Your task to perform on an android device: Go to network settings Image 0: 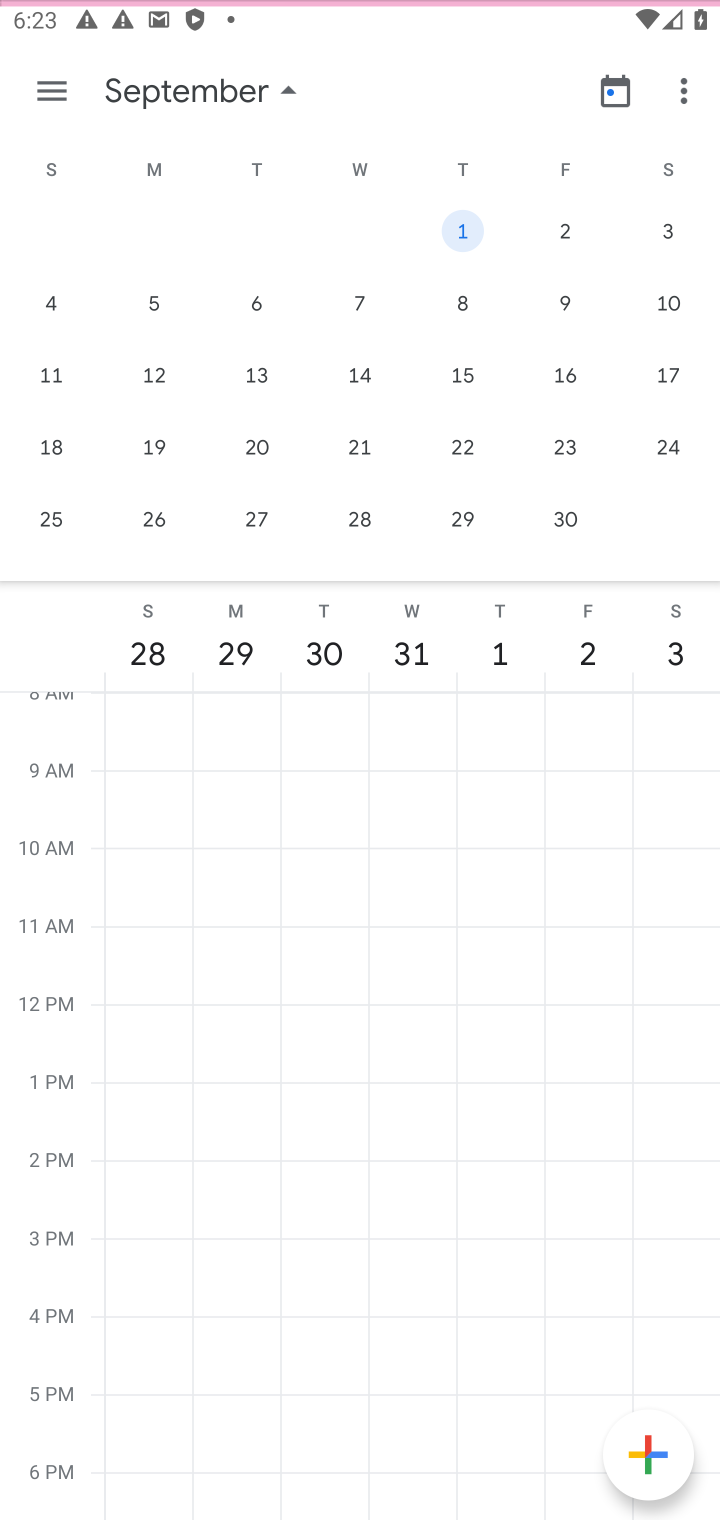
Step 0: press back button
Your task to perform on an android device: Go to network settings Image 1: 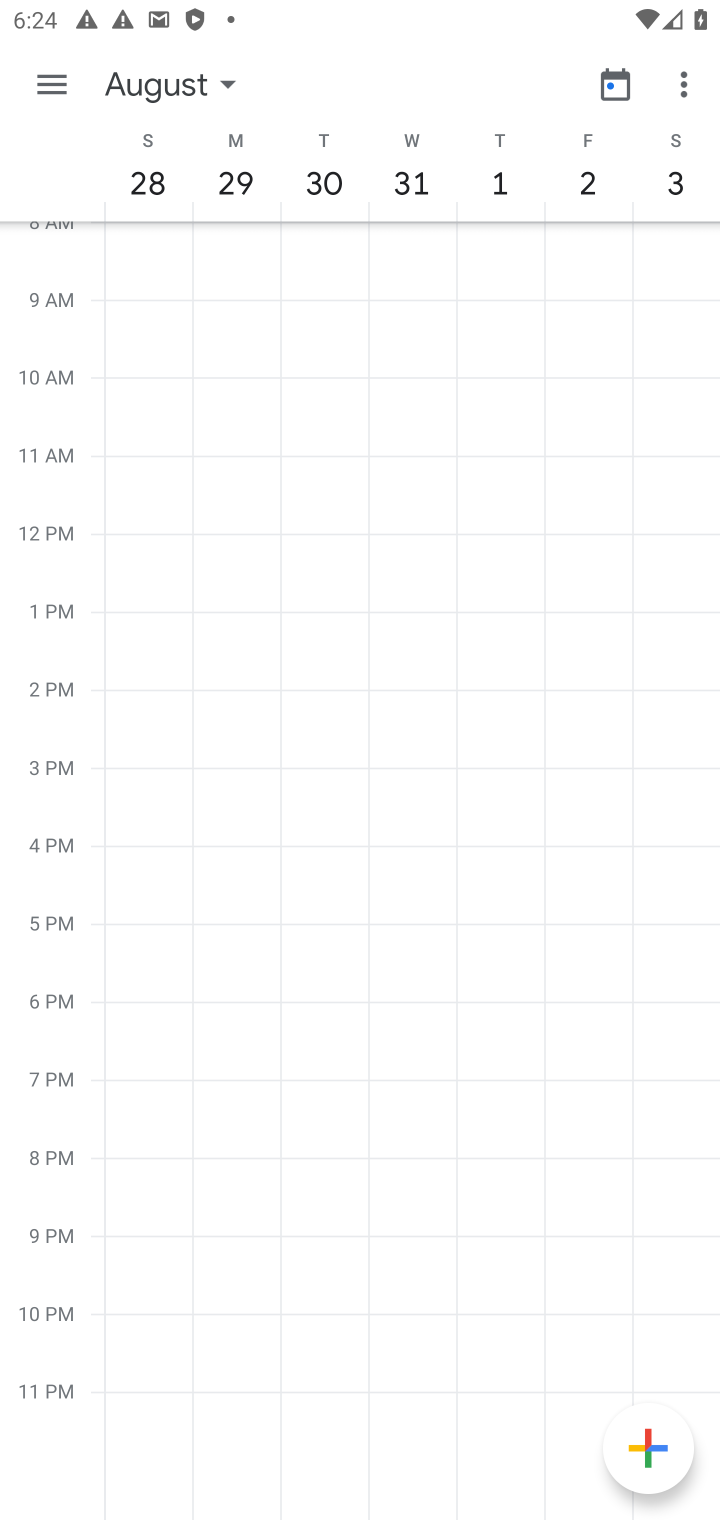
Step 1: drag from (340, 1274) to (423, 260)
Your task to perform on an android device: Go to network settings Image 2: 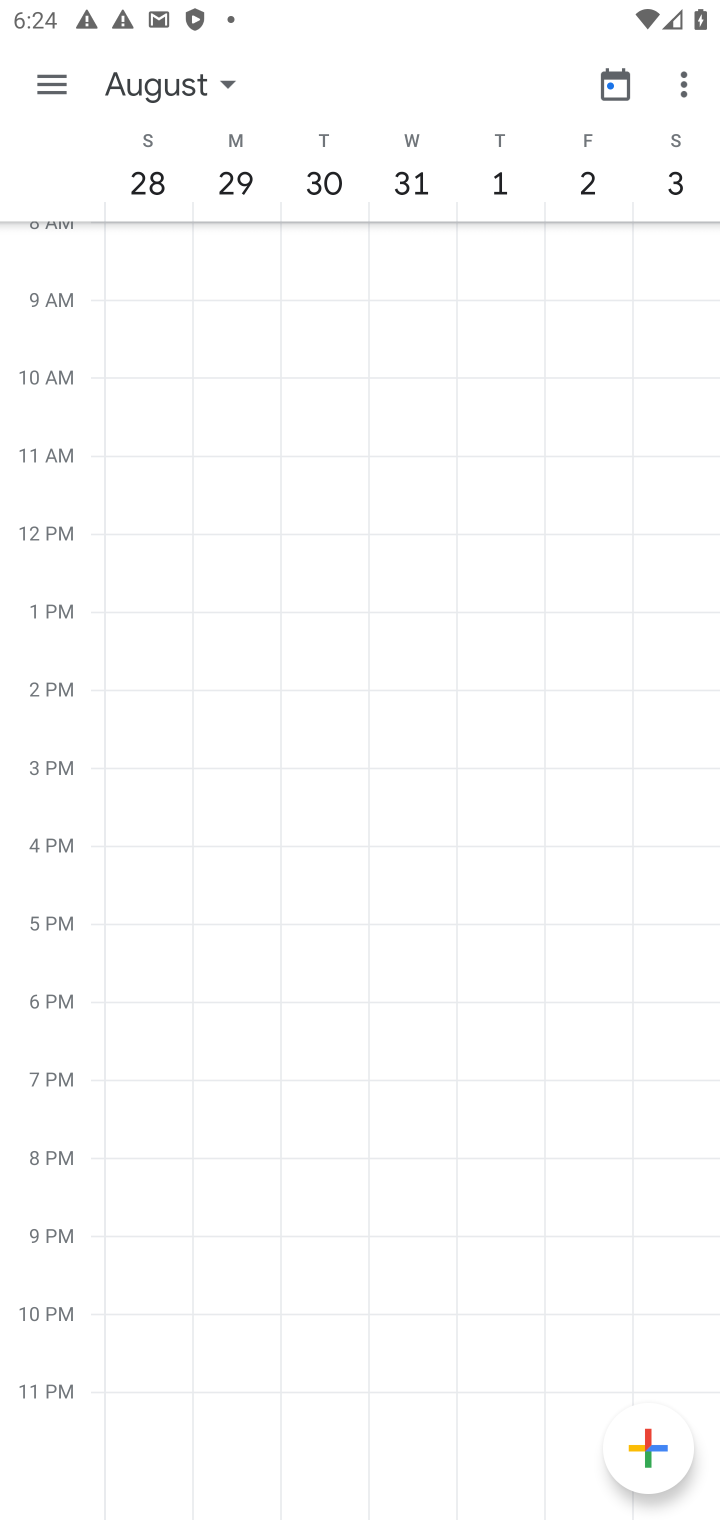
Step 2: press home button
Your task to perform on an android device: Go to network settings Image 3: 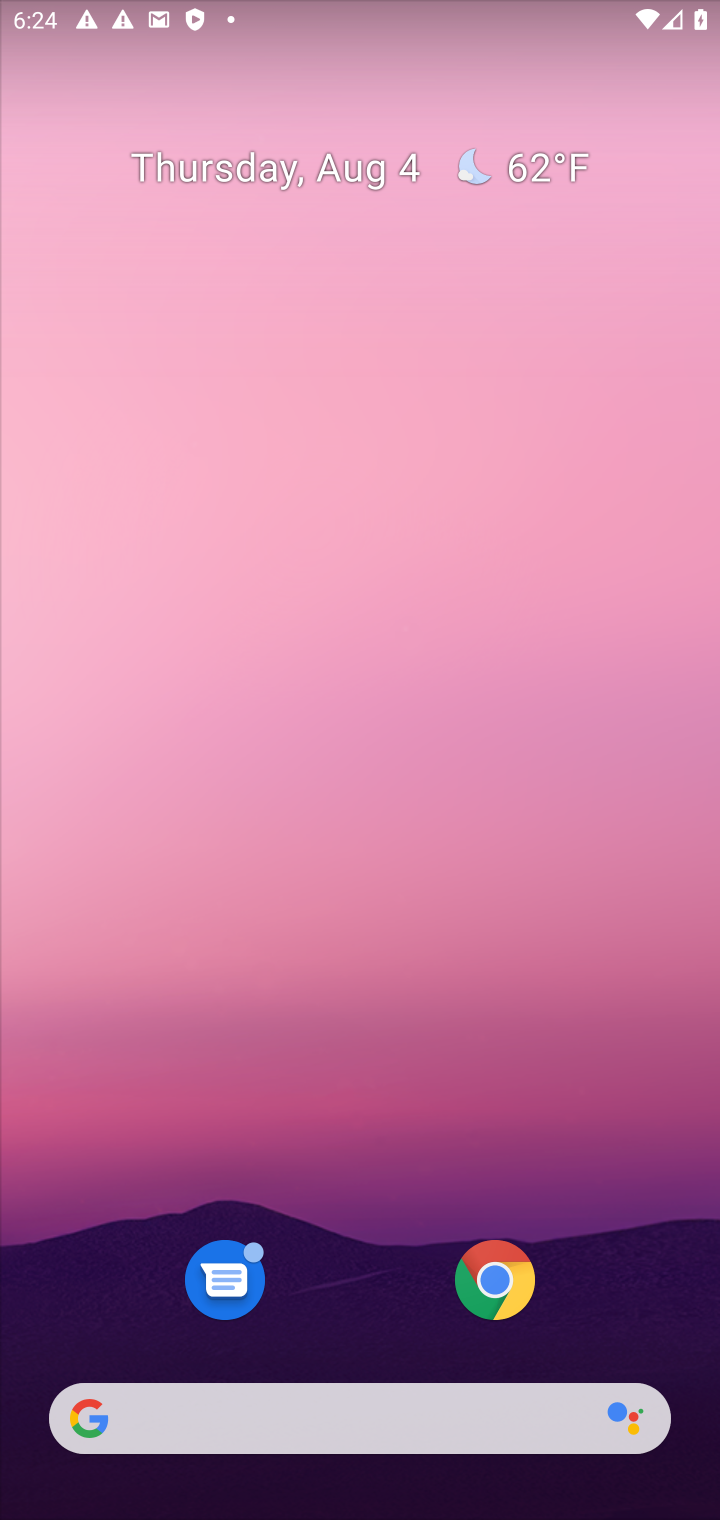
Step 3: drag from (355, 1303) to (351, 410)
Your task to perform on an android device: Go to network settings Image 4: 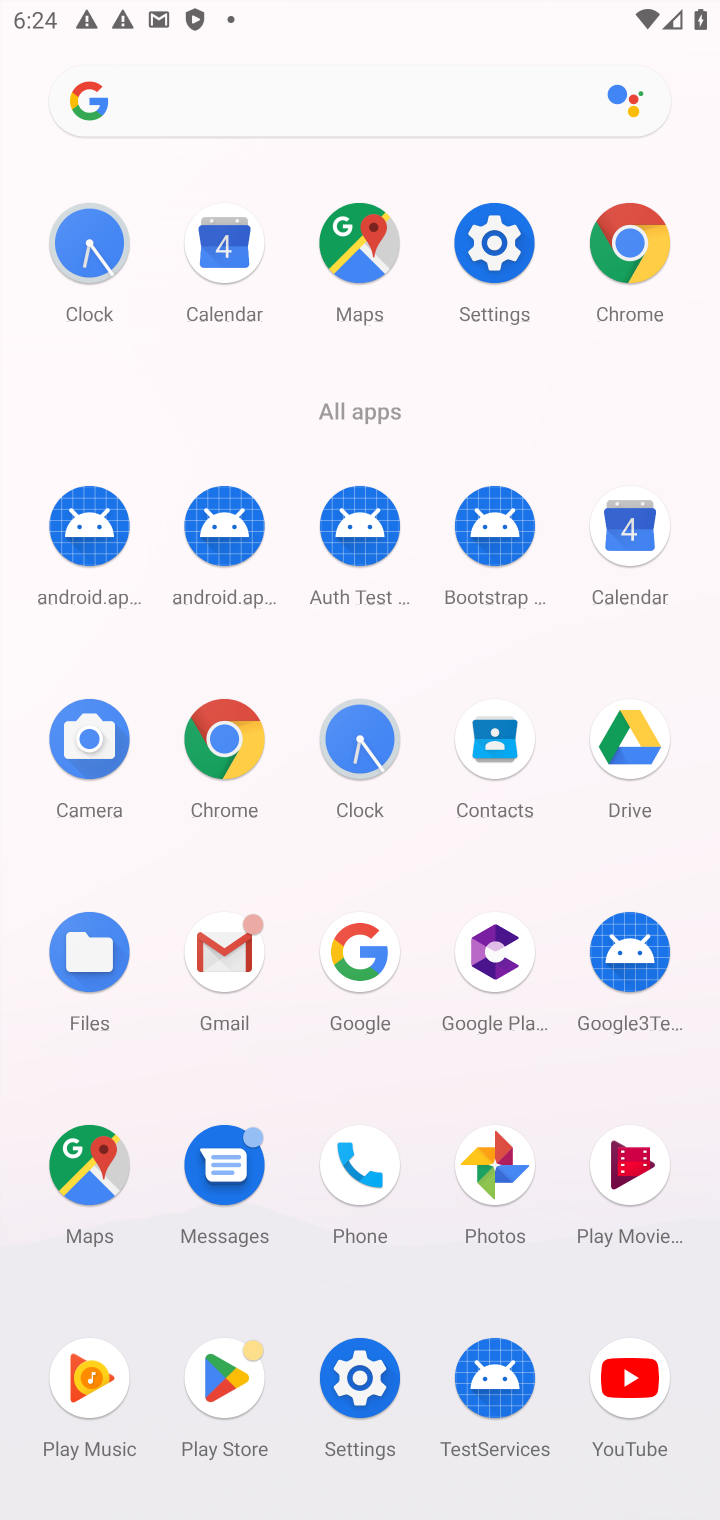
Step 4: click (485, 236)
Your task to perform on an android device: Go to network settings Image 5: 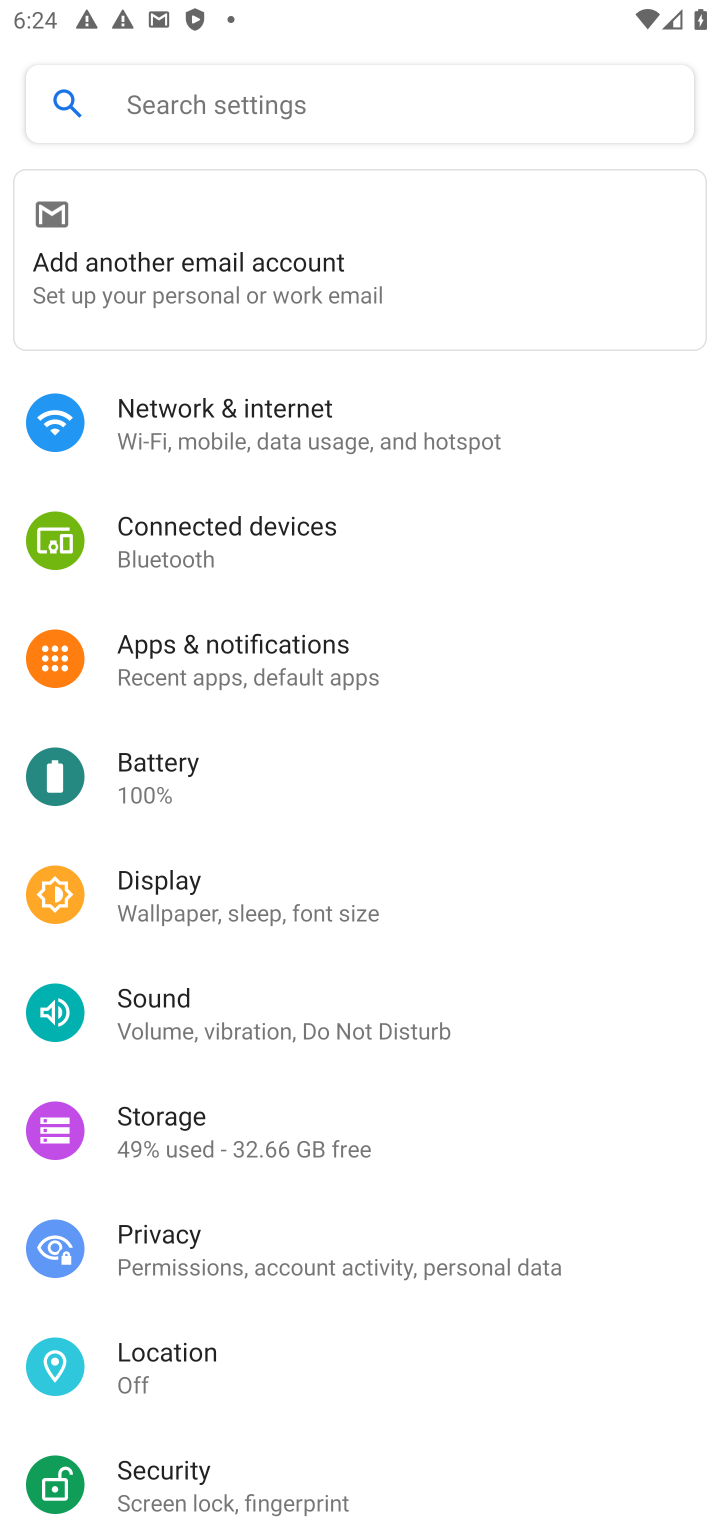
Step 5: click (200, 439)
Your task to perform on an android device: Go to network settings Image 6: 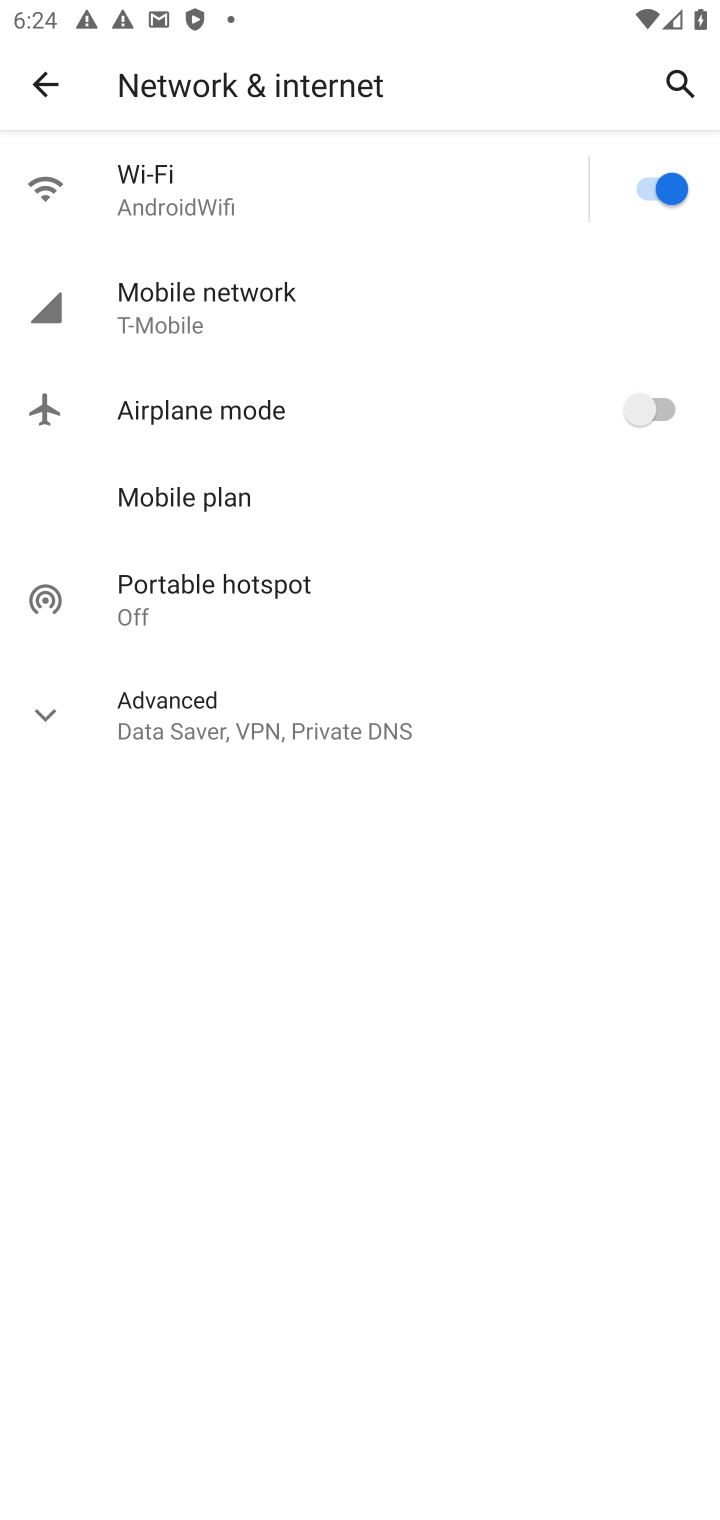
Step 6: task complete